Your task to perform on an android device: What's the weather today? Image 0: 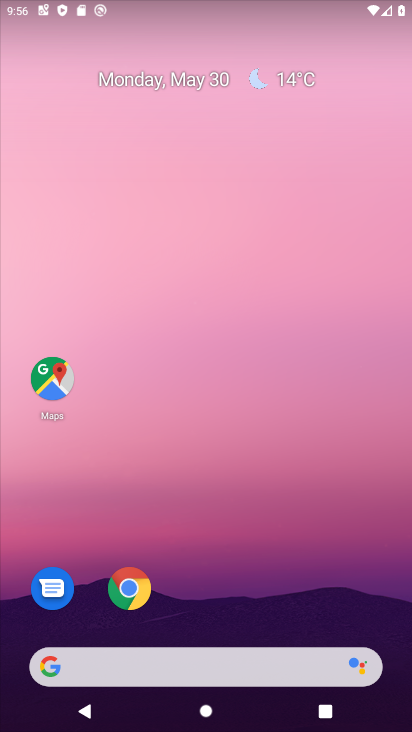
Step 0: click (272, 94)
Your task to perform on an android device: What's the weather today? Image 1: 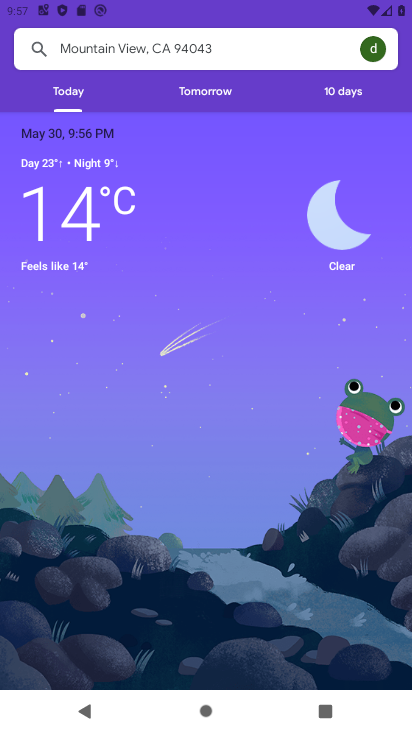
Step 1: task complete